Your task to perform on an android device: turn off smart reply in the gmail app Image 0: 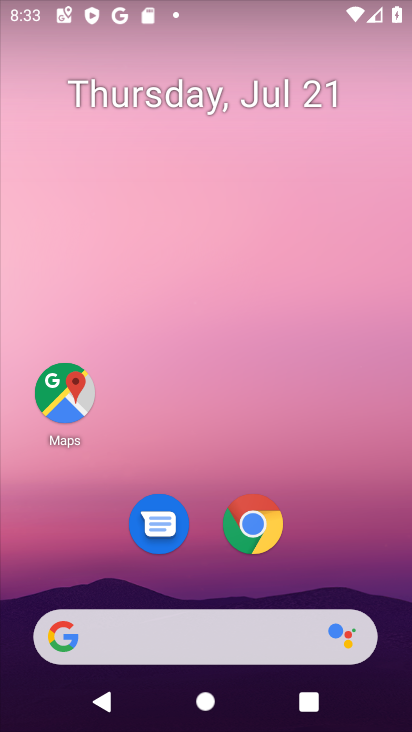
Step 0: drag from (194, 602) to (260, 118)
Your task to perform on an android device: turn off smart reply in the gmail app Image 1: 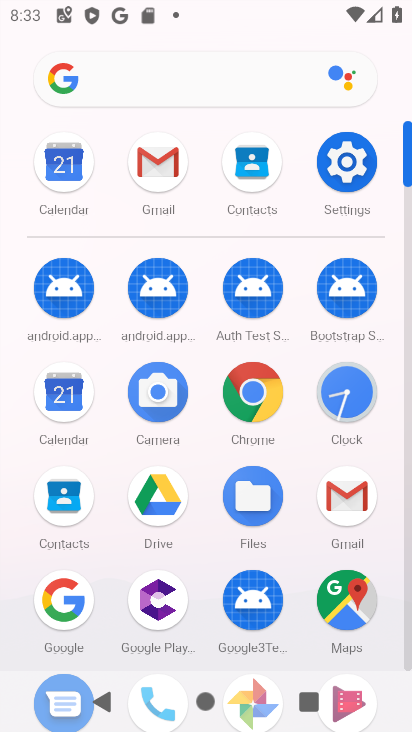
Step 1: click (168, 170)
Your task to perform on an android device: turn off smart reply in the gmail app Image 2: 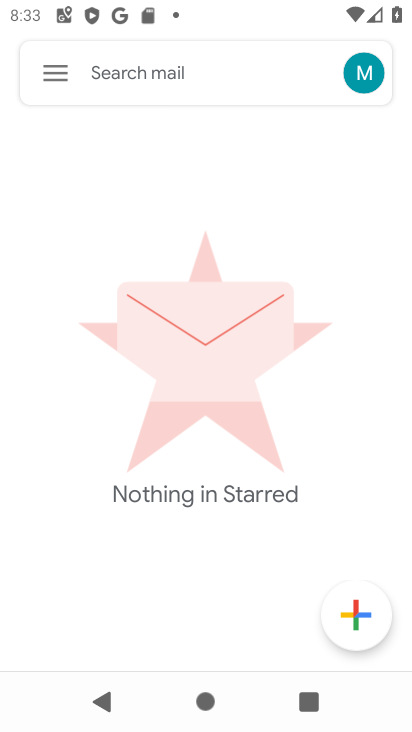
Step 2: click (63, 67)
Your task to perform on an android device: turn off smart reply in the gmail app Image 3: 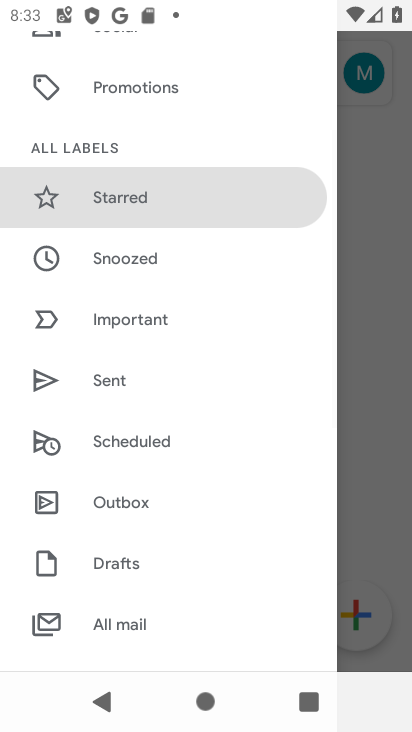
Step 3: drag from (177, 583) to (257, 121)
Your task to perform on an android device: turn off smart reply in the gmail app Image 4: 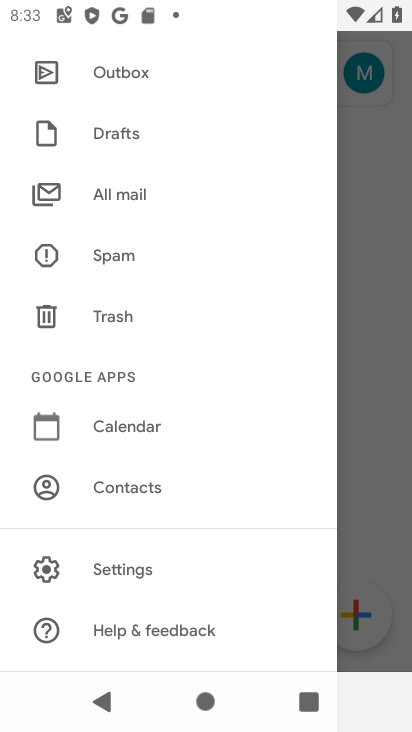
Step 4: click (115, 570)
Your task to perform on an android device: turn off smart reply in the gmail app Image 5: 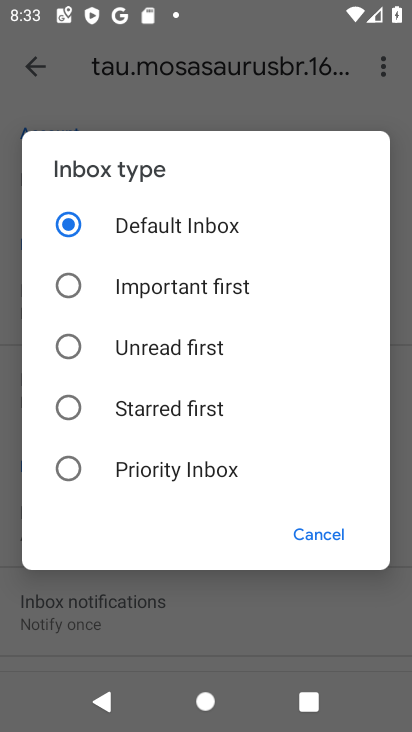
Step 5: click (304, 536)
Your task to perform on an android device: turn off smart reply in the gmail app Image 6: 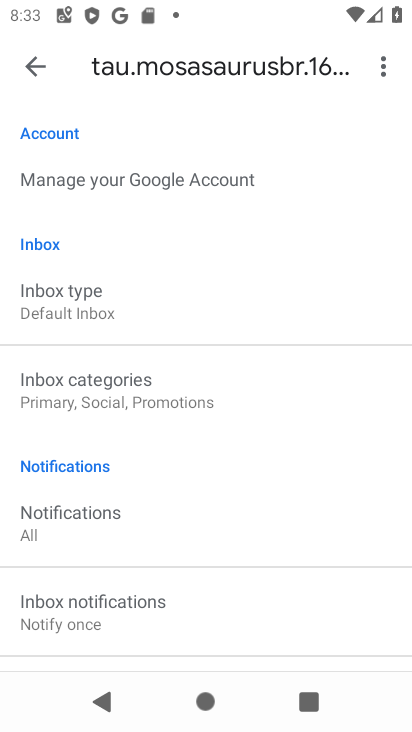
Step 6: drag from (219, 630) to (282, 73)
Your task to perform on an android device: turn off smart reply in the gmail app Image 7: 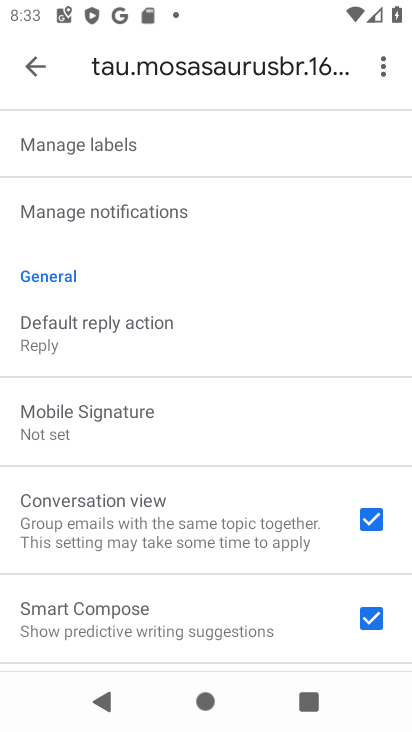
Step 7: drag from (271, 572) to (300, 206)
Your task to perform on an android device: turn off smart reply in the gmail app Image 8: 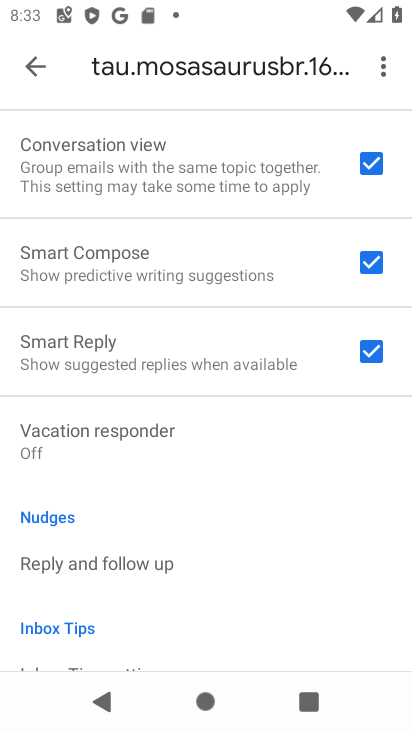
Step 8: click (368, 348)
Your task to perform on an android device: turn off smart reply in the gmail app Image 9: 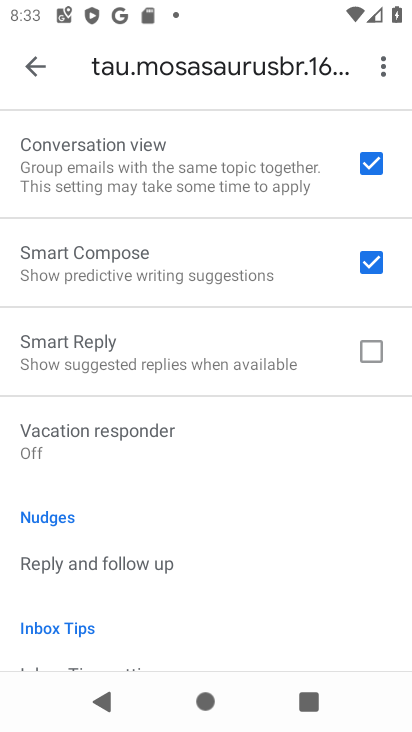
Step 9: task complete